Your task to perform on an android device: see tabs open on other devices in the chrome app Image 0: 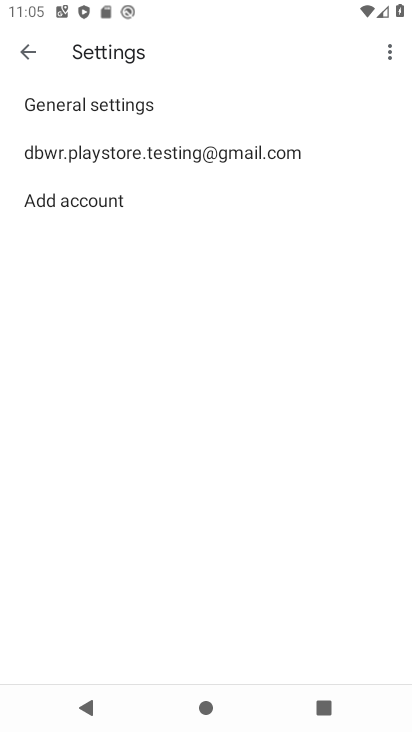
Step 0: press back button
Your task to perform on an android device: see tabs open on other devices in the chrome app Image 1: 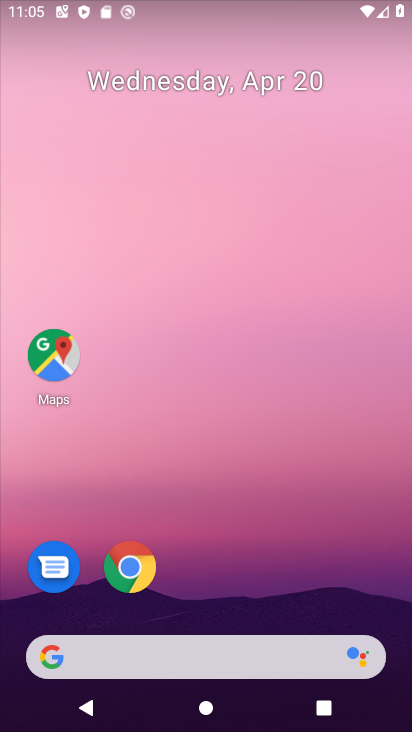
Step 1: click (126, 561)
Your task to perform on an android device: see tabs open on other devices in the chrome app Image 2: 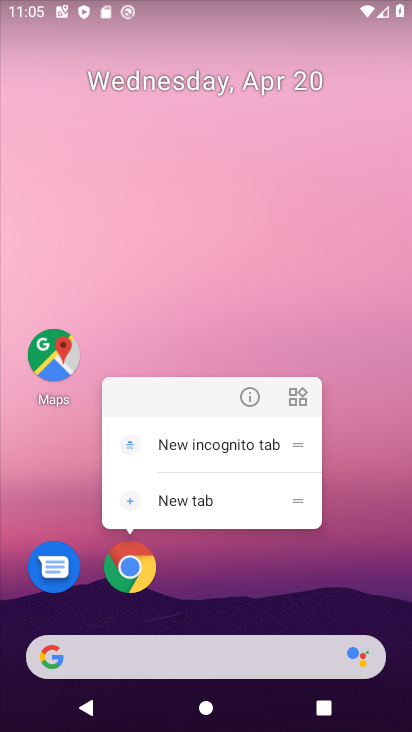
Step 2: click (130, 558)
Your task to perform on an android device: see tabs open on other devices in the chrome app Image 3: 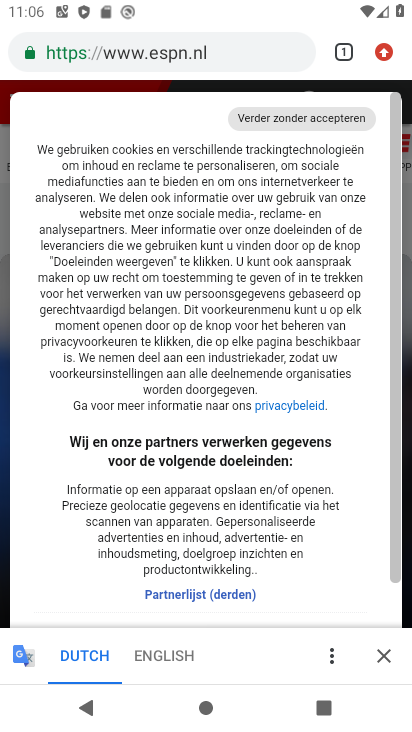
Step 3: drag from (377, 34) to (245, 598)
Your task to perform on an android device: see tabs open on other devices in the chrome app Image 4: 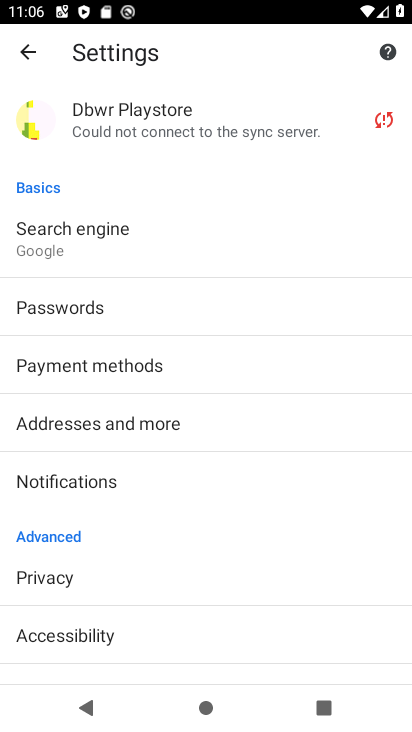
Step 4: click (29, 50)
Your task to perform on an android device: see tabs open on other devices in the chrome app Image 5: 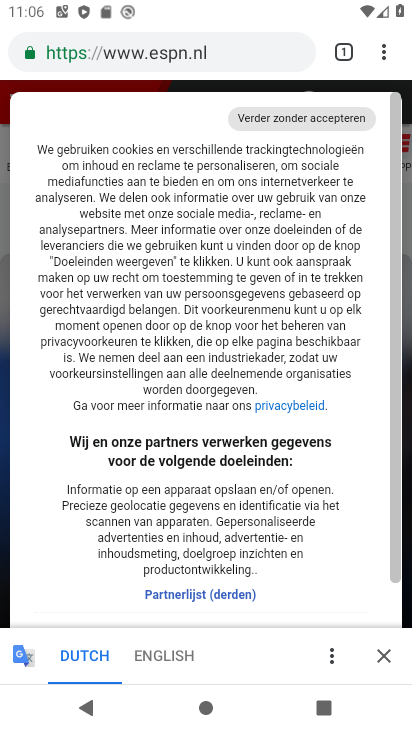
Step 5: task complete